Your task to perform on an android device: Open eBay Image 0: 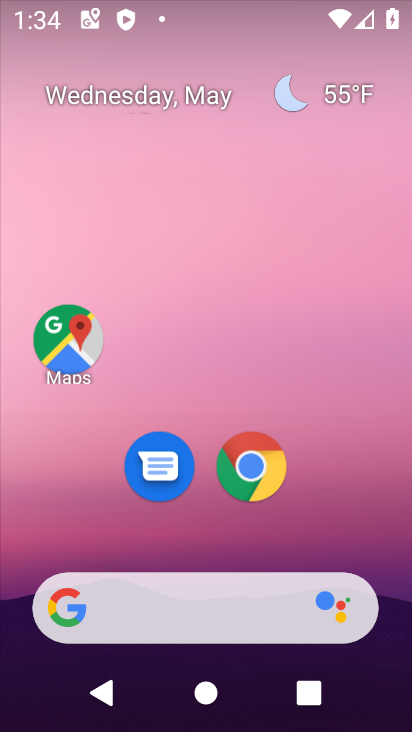
Step 0: click (246, 449)
Your task to perform on an android device: Open eBay Image 1: 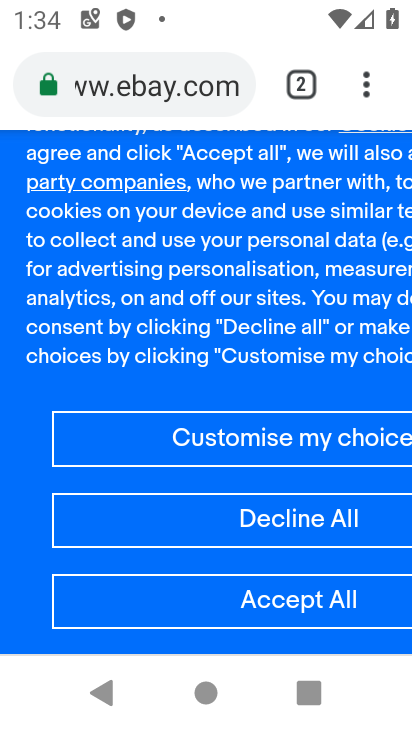
Step 1: task complete